Your task to perform on an android device: Open maps Image 0: 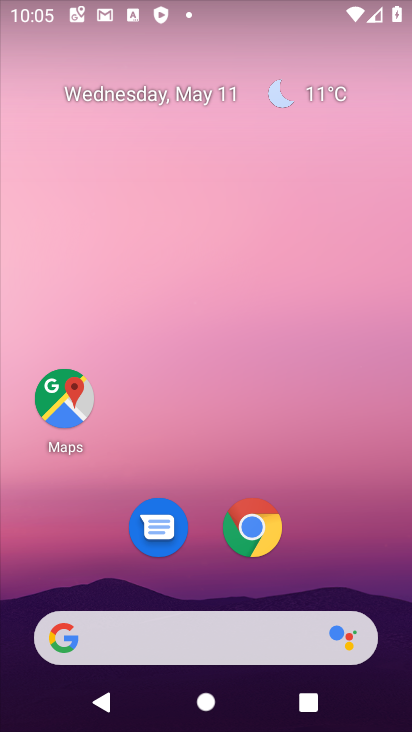
Step 0: drag from (342, 524) to (324, 56)
Your task to perform on an android device: Open maps Image 1: 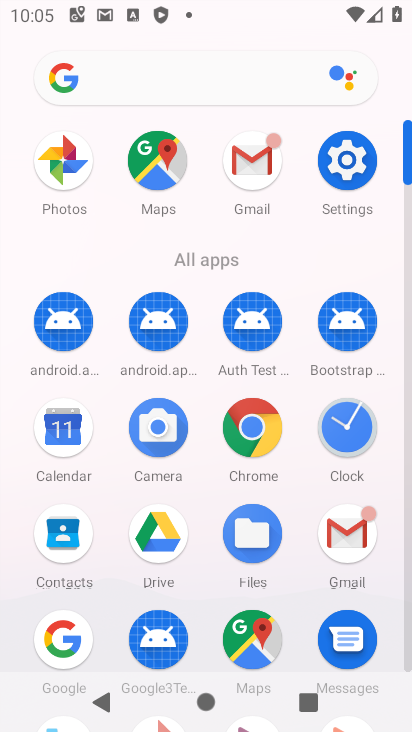
Step 1: click (254, 641)
Your task to perform on an android device: Open maps Image 2: 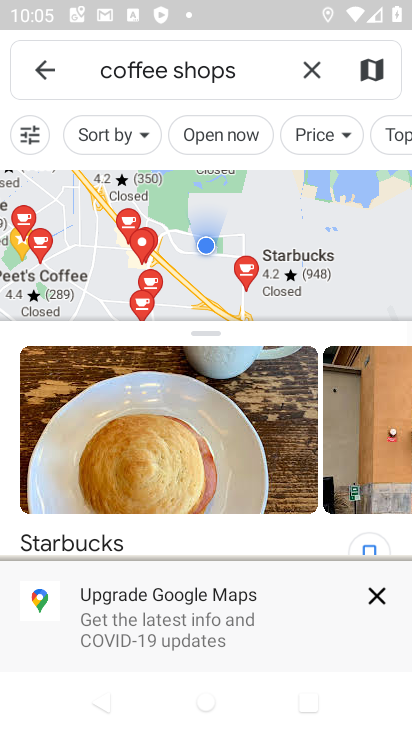
Step 2: task complete